Your task to perform on an android device: open chrome and create a bookmark for the current page Image 0: 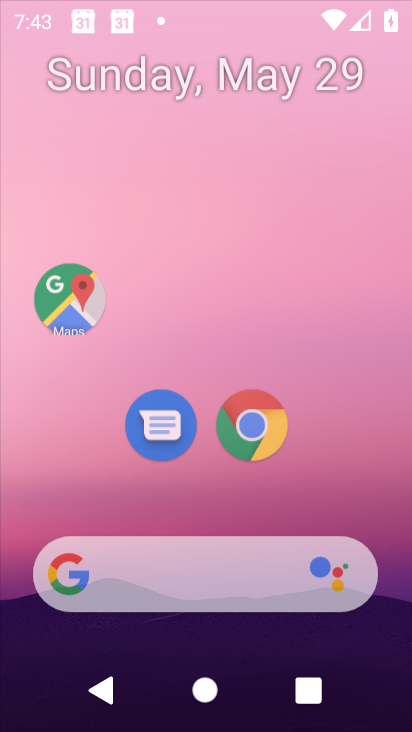
Step 0: click (249, 148)
Your task to perform on an android device: open chrome and create a bookmark for the current page Image 1: 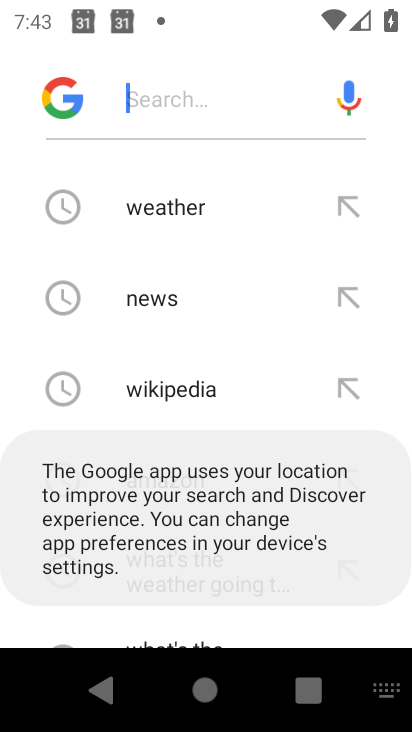
Step 1: press home button
Your task to perform on an android device: open chrome and create a bookmark for the current page Image 2: 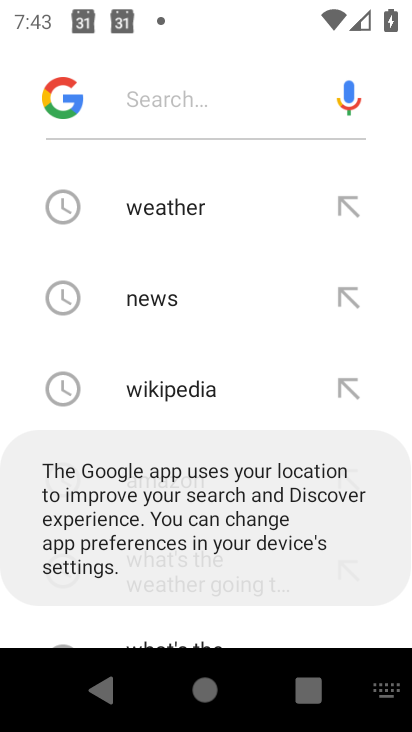
Step 2: press home button
Your task to perform on an android device: open chrome and create a bookmark for the current page Image 3: 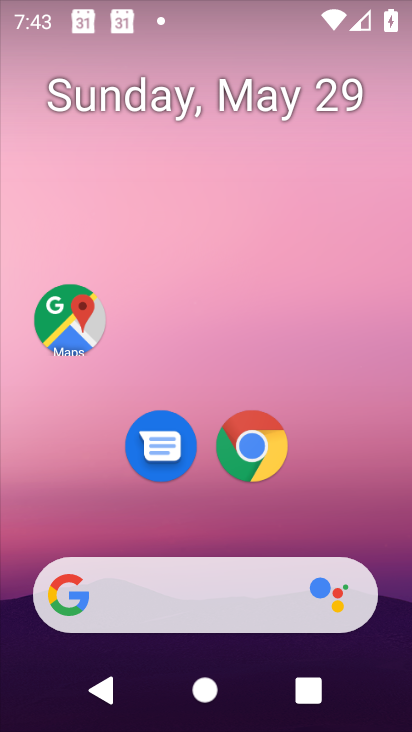
Step 3: drag from (199, 533) to (246, 106)
Your task to perform on an android device: open chrome and create a bookmark for the current page Image 4: 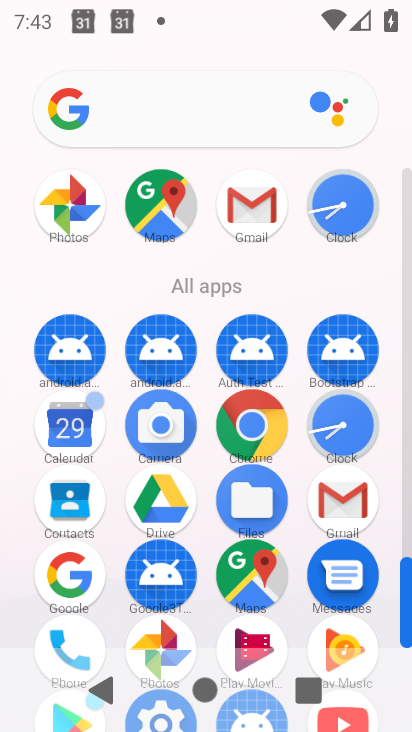
Step 4: drag from (207, 633) to (223, 196)
Your task to perform on an android device: open chrome and create a bookmark for the current page Image 5: 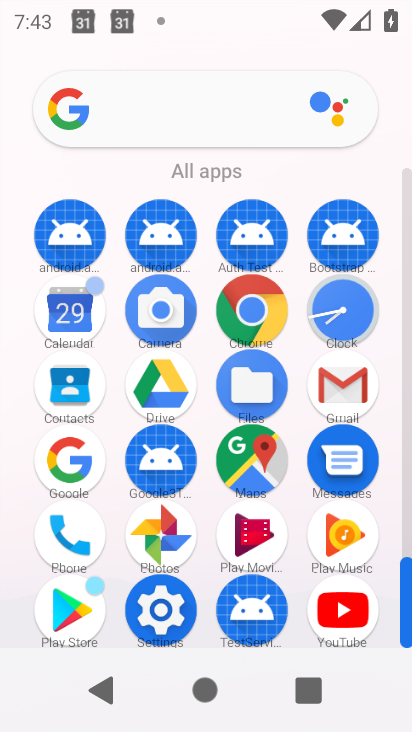
Step 5: click (170, 599)
Your task to perform on an android device: open chrome and create a bookmark for the current page Image 6: 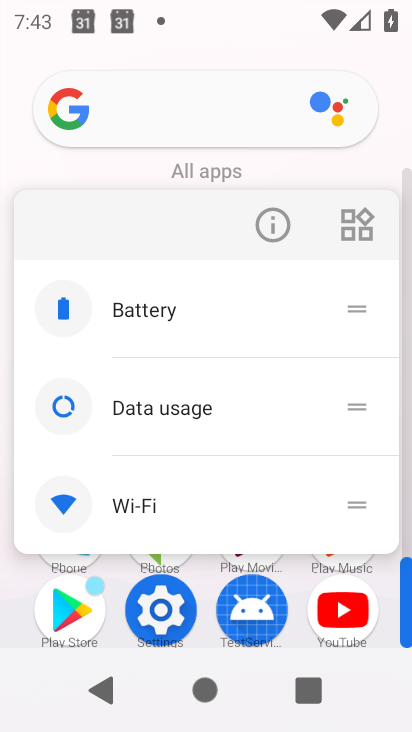
Step 6: click (274, 218)
Your task to perform on an android device: open chrome and create a bookmark for the current page Image 7: 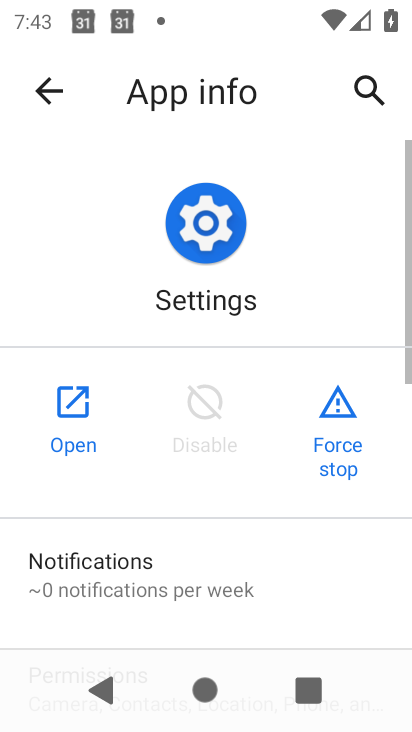
Step 7: click (21, 412)
Your task to perform on an android device: open chrome and create a bookmark for the current page Image 8: 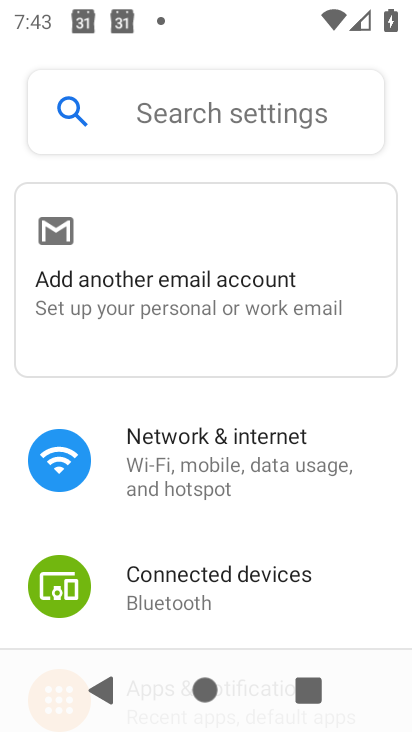
Step 8: drag from (210, 613) to (295, 94)
Your task to perform on an android device: open chrome and create a bookmark for the current page Image 9: 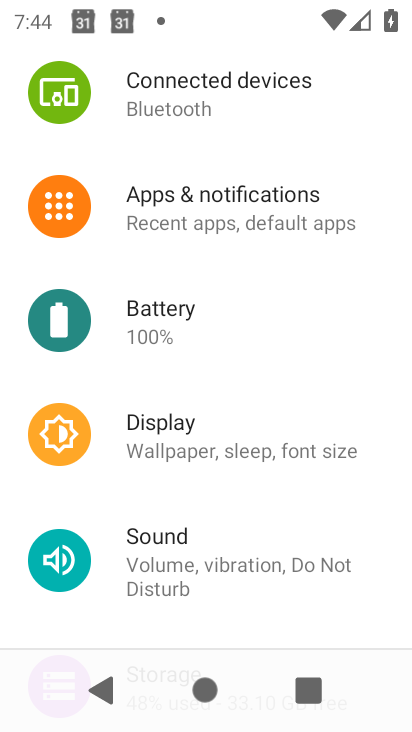
Step 9: press home button
Your task to perform on an android device: open chrome and create a bookmark for the current page Image 10: 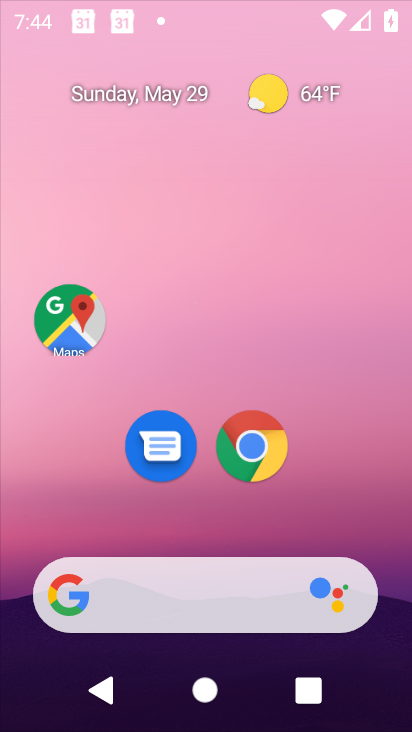
Step 10: drag from (288, 598) to (331, 127)
Your task to perform on an android device: open chrome and create a bookmark for the current page Image 11: 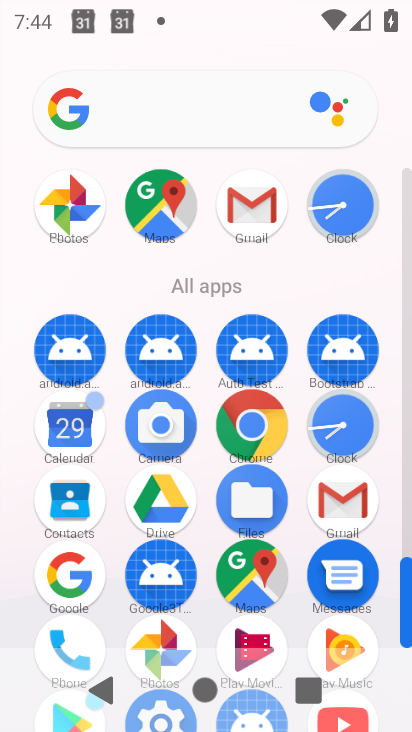
Step 11: click (265, 416)
Your task to perform on an android device: open chrome and create a bookmark for the current page Image 12: 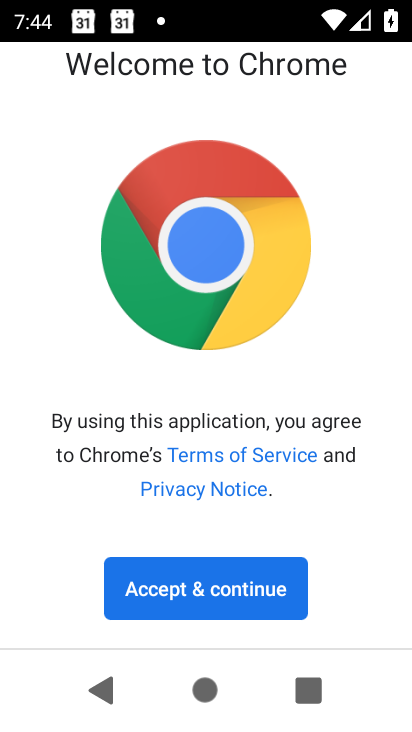
Step 12: click (234, 587)
Your task to perform on an android device: open chrome and create a bookmark for the current page Image 13: 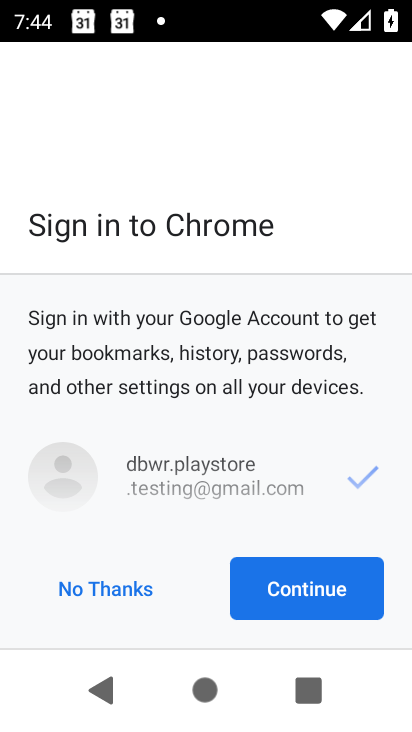
Step 13: click (81, 607)
Your task to perform on an android device: open chrome and create a bookmark for the current page Image 14: 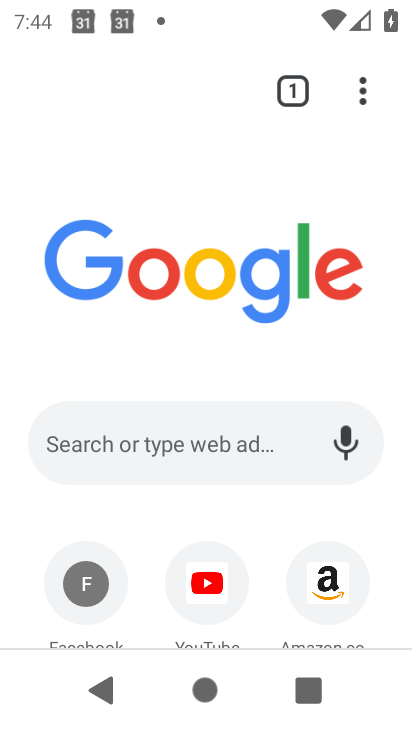
Step 14: task complete